Your task to perform on an android device: turn off priority inbox in the gmail app Image 0: 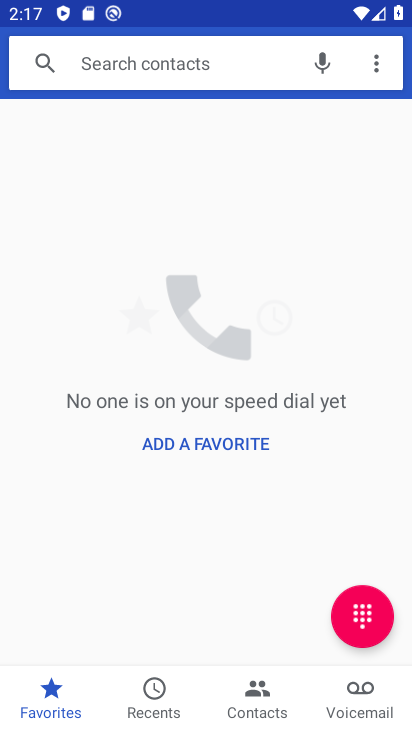
Step 0: press home button
Your task to perform on an android device: turn off priority inbox in the gmail app Image 1: 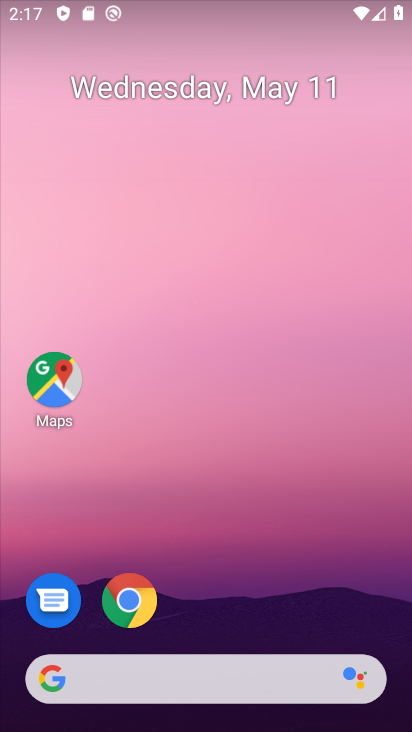
Step 1: drag from (207, 585) to (210, 266)
Your task to perform on an android device: turn off priority inbox in the gmail app Image 2: 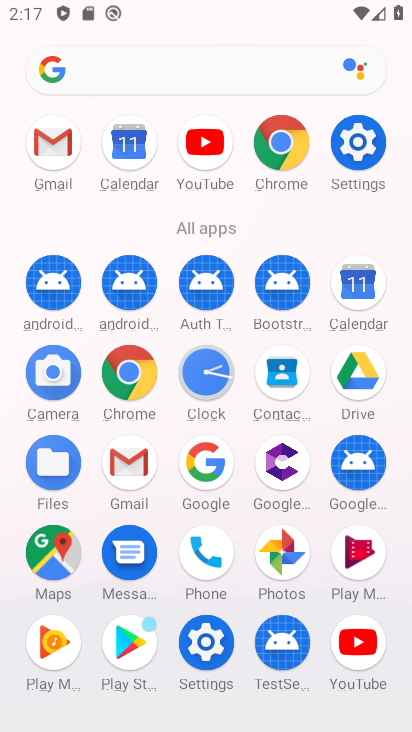
Step 2: click (130, 455)
Your task to perform on an android device: turn off priority inbox in the gmail app Image 3: 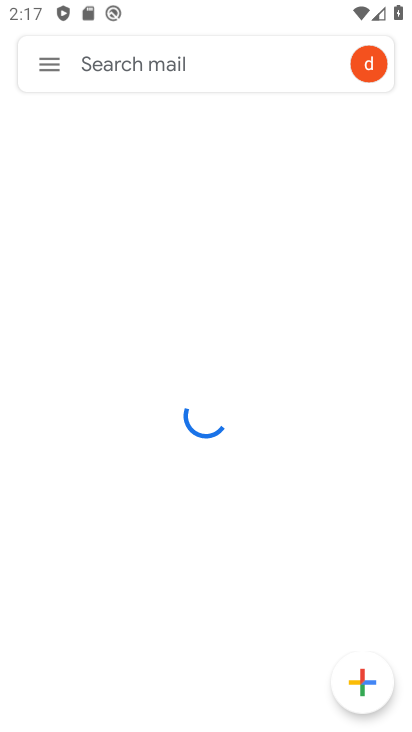
Step 3: click (47, 59)
Your task to perform on an android device: turn off priority inbox in the gmail app Image 4: 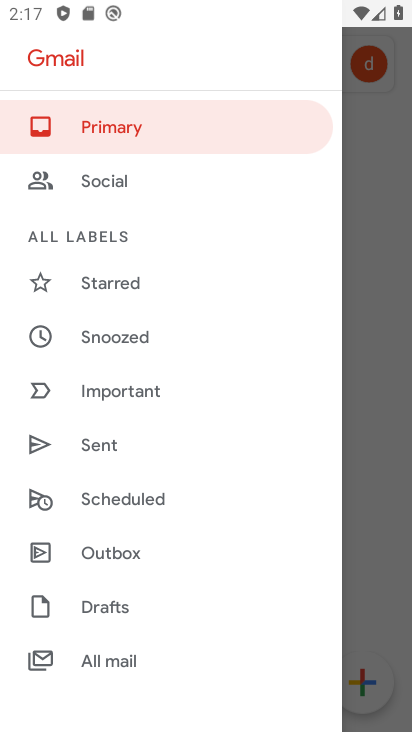
Step 4: drag from (144, 643) to (198, 184)
Your task to perform on an android device: turn off priority inbox in the gmail app Image 5: 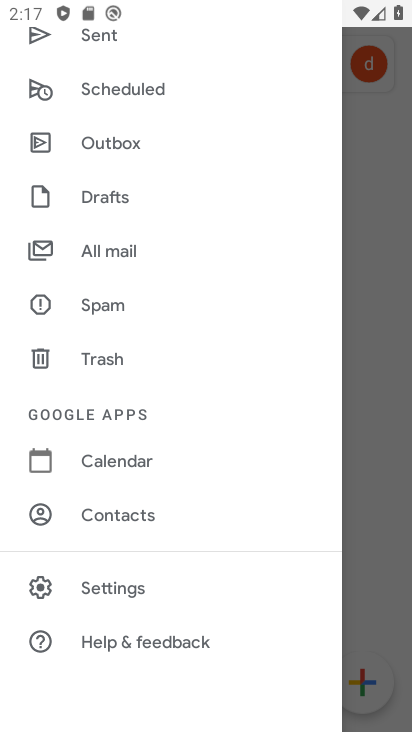
Step 5: click (120, 593)
Your task to perform on an android device: turn off priority inbox in the gmail app Image 6: 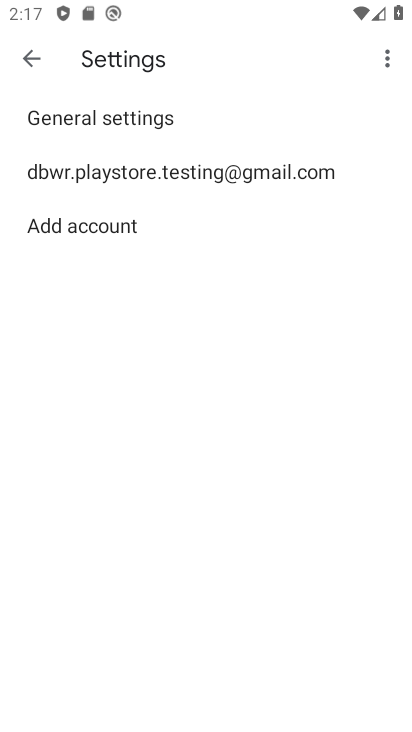
Step 6: click (152, 178)
Your task to perform on an android device: turn off priority inbox in the gmail app Image 7: 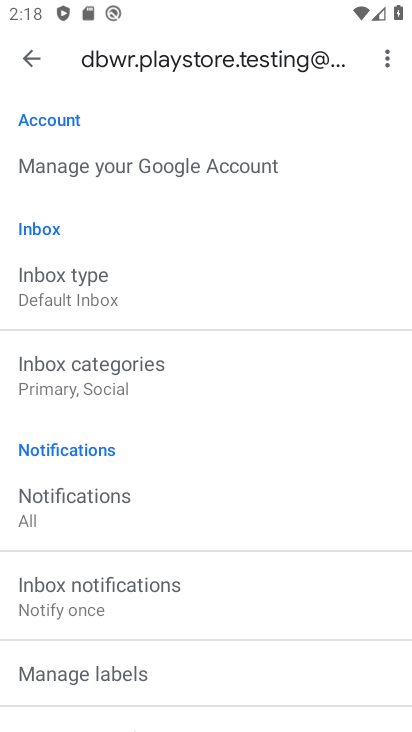
Step 7: click (120, 289)
Your task to perform on an android device: turn off priority inbox in the gmail app Image 8: 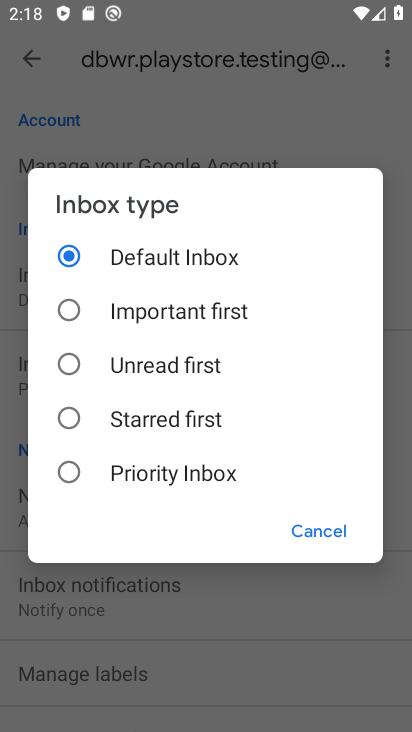
Step 8: task complete